Your task to perform on an android device: What's the US dollar exchange rate against the Australian Dollar? Image 0: 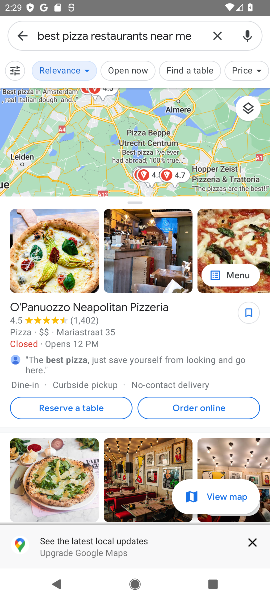
Step 0: press home button
Your task to perform on an android device: What's the US dollar exchange rate against the Australian Dollar? Image 1: 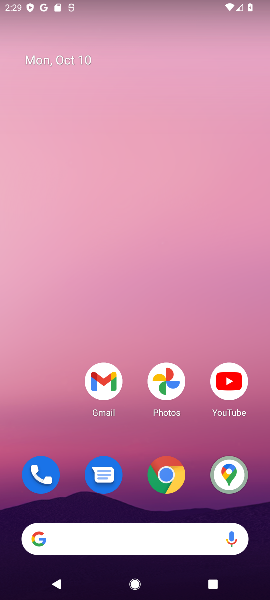
Step 1: drag from (136, 451) to (166, 58)
Your task to perform on an android device: What's the US dollar exchange rate against the Australian Dollar? Image 2: 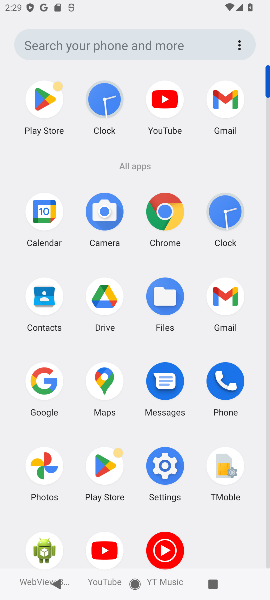
Step 2: click (49, 381)
Your task to perform on an android device: What's the US dollar exchange rate against the Australian Dollar? Image 3: 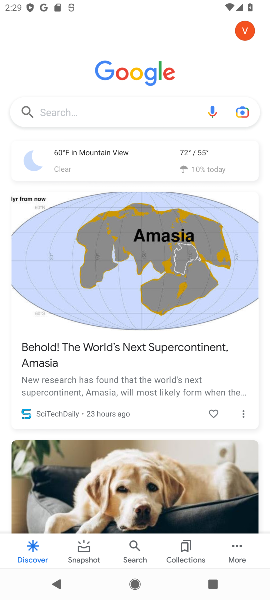
Step 3: click (134, 120)
Your task to perform on an android device: What's the US dollar exchange rate against the Australian Dollar? Image 4: 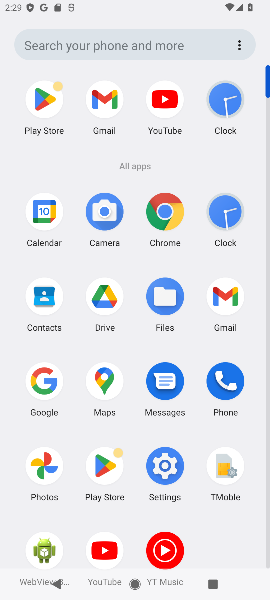
Step 4: click (46, 393)
Your task to perform on an android device: What's the US dollar exchange rate against the Australian Dollar? Image 5: 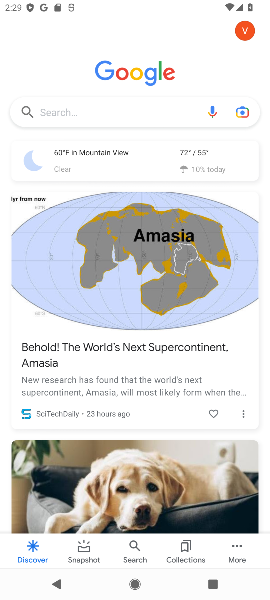
Step 5: click (128, 117)
Your task to perform on an android device: What's the US dollar exchange rate against the Australian Dollar? Image 6: 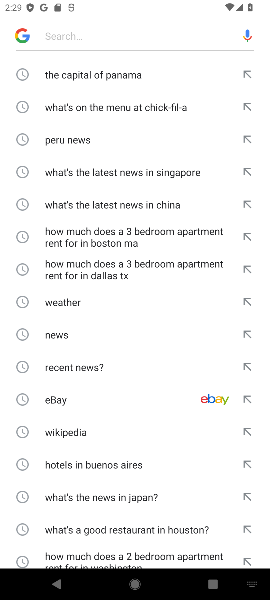
Step 6: type "US dollar exchange rate against the Australian Dollar"
Your task to perform on an android device: What's the US dollar exchange rate against the Australian Dollar? Image 7: 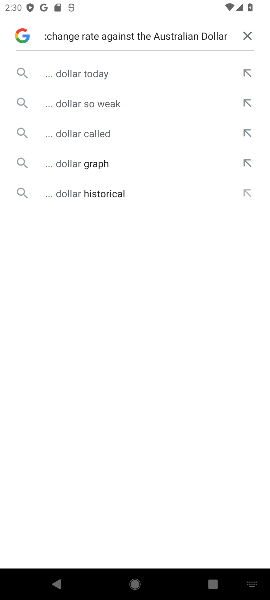
Step 7: click (143, 69)
Your task to perform on an android device: What's the US dollar exchange rate against the Australian Dollar? Image 8: 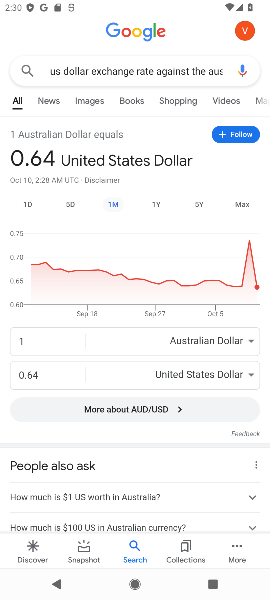
Step 8: task complete